Your task to perform on an android device: Search for "duracell triple a" on costco, select the first entry, and add it to the cart. Image 0: 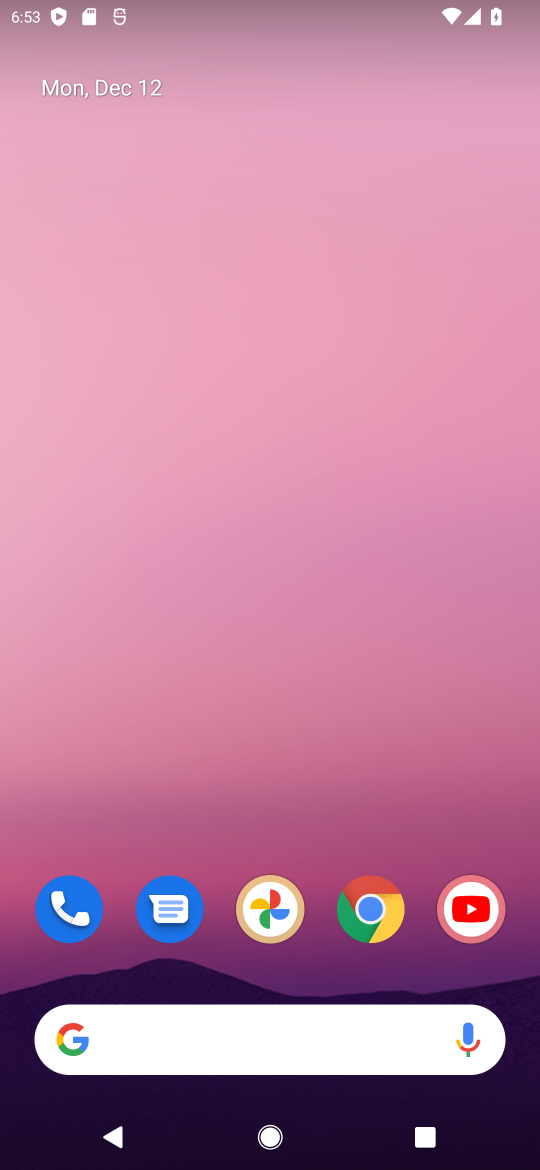
Step 0: click (381, 897)
Your task to perform on an android device: Search for "duracell triple a" on costco, select the first entry, and add it to the cart. Image 1: 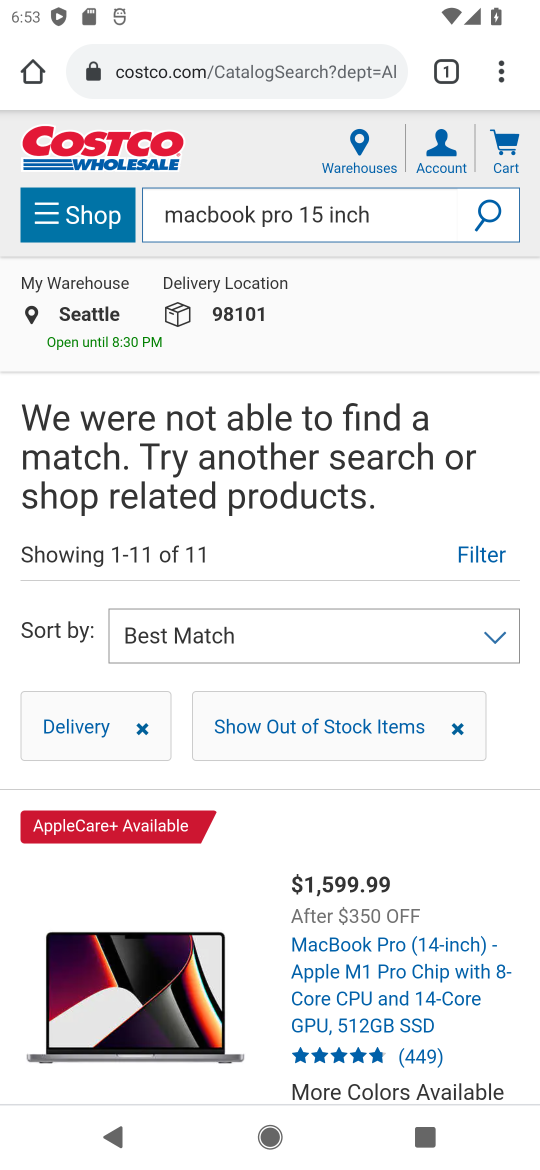
Step 1: click (415, 209)
Your task to perform on an android device: Search for "duracell triple a" on costco, select the first entry, and add it to the cart. Image 2: 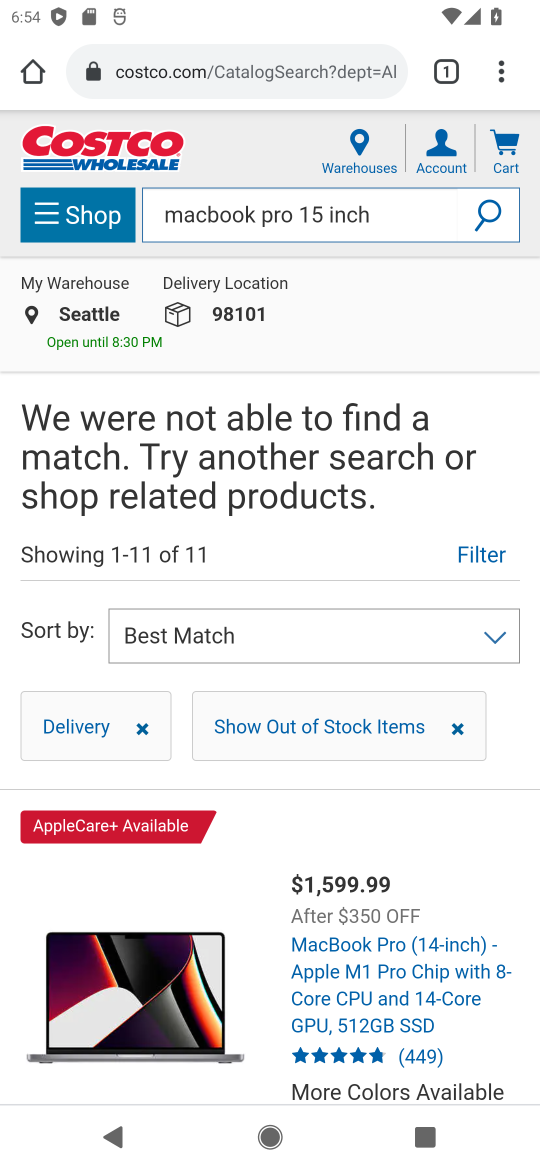
Step 2: click (415, 209)
Your task to perform on an android device: Search for "duracell triple a" on costco, select the first entry, and add it to the cart. Image 3: 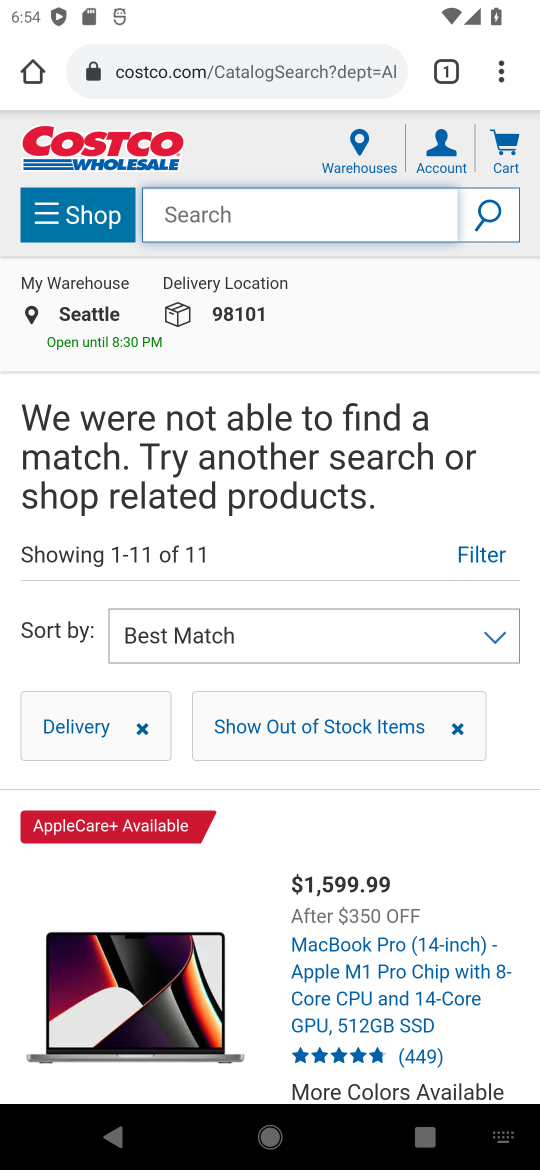
Step 3: type "duracell triple a"
Your task to perform on an android device: Search for "duracell triple a" on costco, select the first entry, and add it to the cart. Image 4: 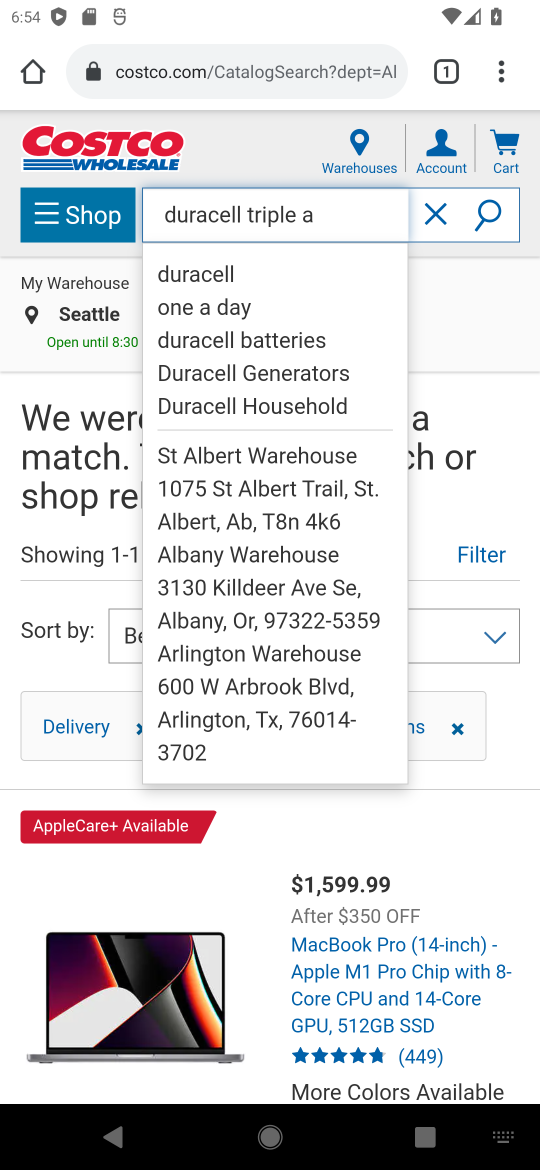
Step 4: click (477, 204)
Your task to perform on an android device: Search for "duracell triple a" on costco, select the first entry, and add it to the cart. Image 5: 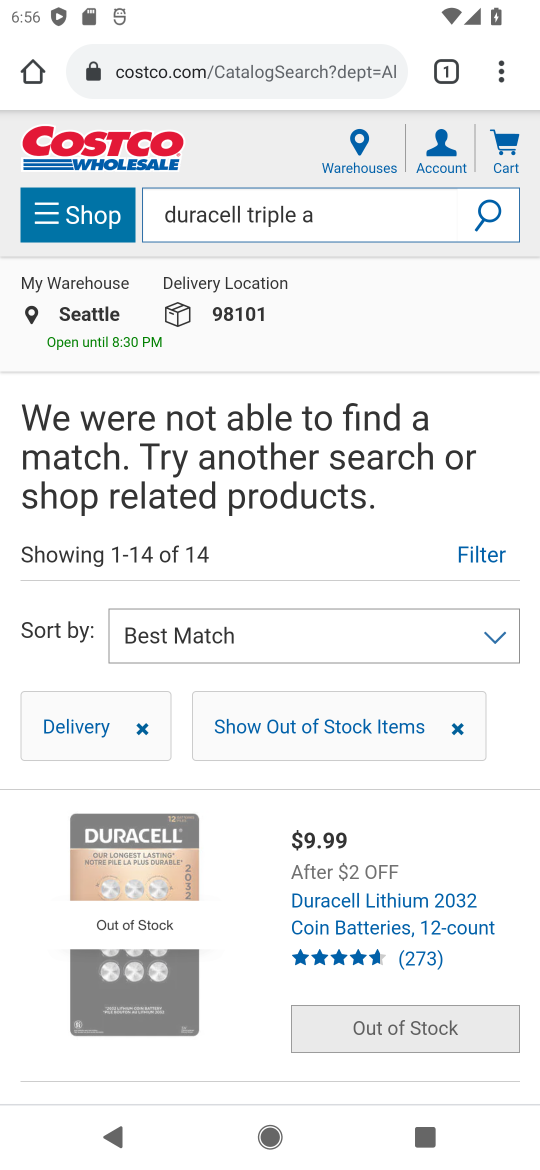
Step 5: task complete